Your task to perform on an android device: Open display settings Image 0: 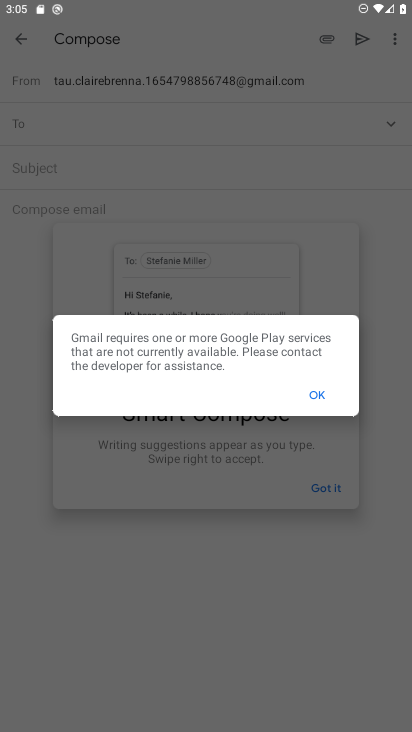
Step 0: press home button
Your task to perform on an android device: Open display settings Image 1: 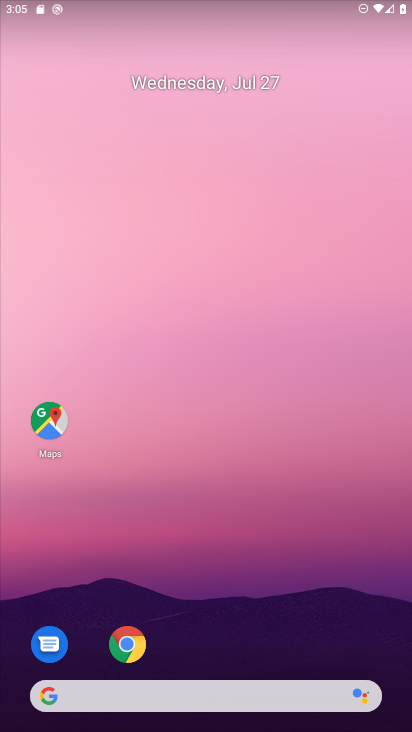
Step 1: drag from (215, 517) to (279, 0)
Your task to perform on an android device: Open display settings Image 2: 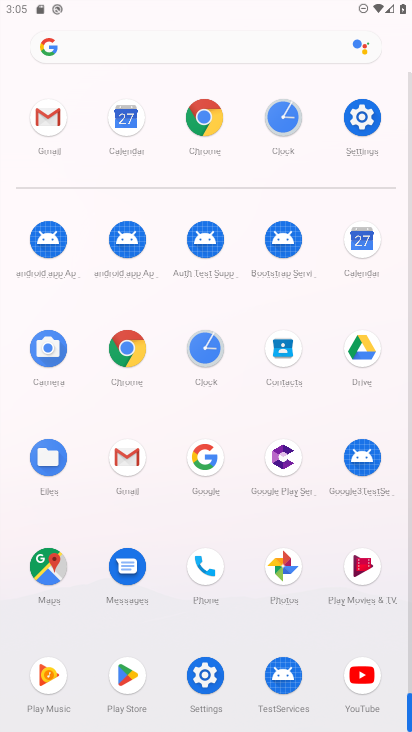
Step 2: click (208, 683)
Your task to perform on an android device: Open display settings Image 3: 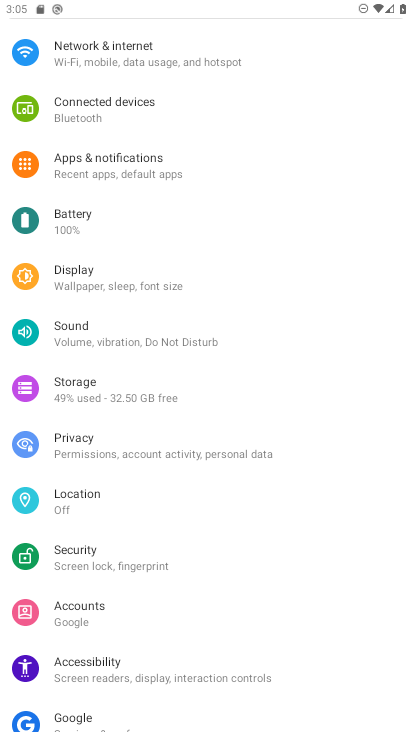
Step 3: click (107, 288)
Your task to perform on an android device: Open display settings Image 4: 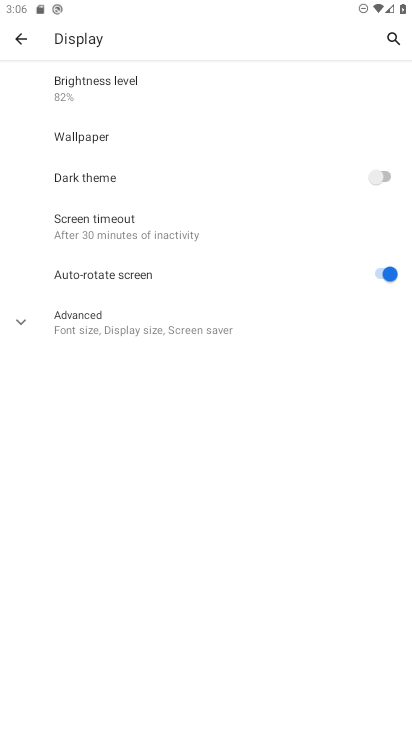
Step 4: task complete